Your task to perform on an android device: find snoozed emails in the gmail app Image 0: 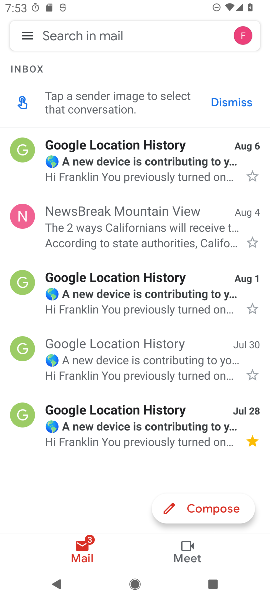
Step 0: press home button
Your task to perform on an android device: find snoozed emails in the gmail app Image 1: 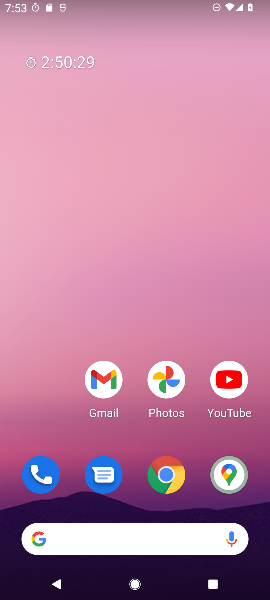
Step 1: drag from (63, 416) to (76, 213)
Your task to perform on an android device: find snoozed emails in the gmail app Image 2: 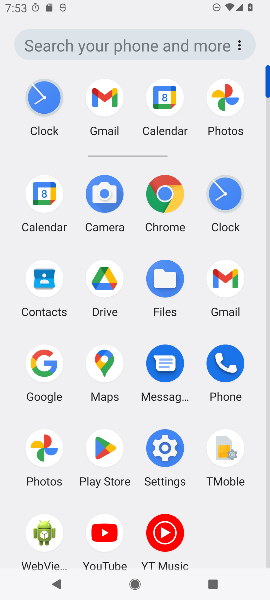
Step 2: click (221, 280)
Your task to perform on an android device: find snoozed emails in the gmail app Image 3: 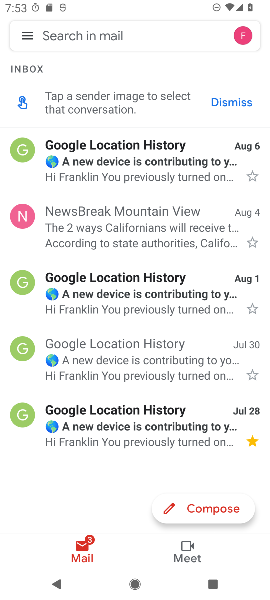
Step 3: click (29, 35)
Your task to perform on an android device: find snoozed emails in the gmail app Image 4: 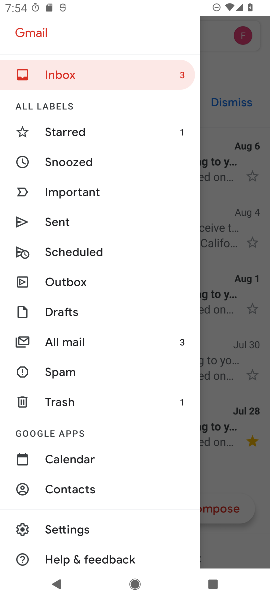
Step 4: click (84, 162)
Your task to perform on an android device: find snoozed emails in the gmail app Image 5: 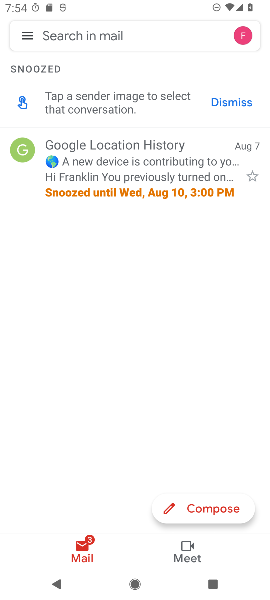
Step 5: task complete